Your task to perform on an android device: Open the web browser Image 0: 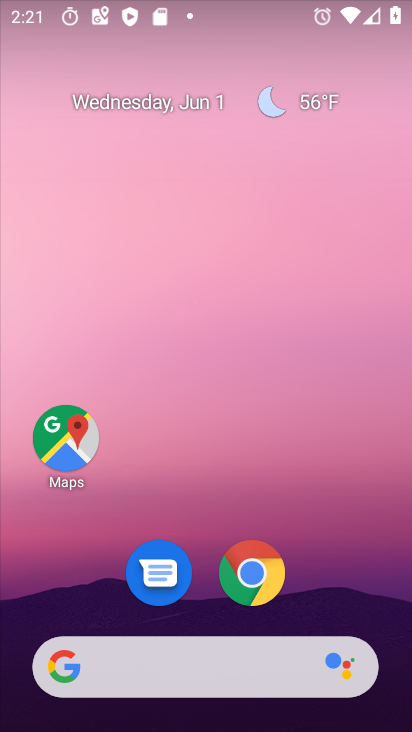
Step 0: drag from (331, 521) to (361, 55)
Your task to perform on an android device: Open the web browser Image 1: 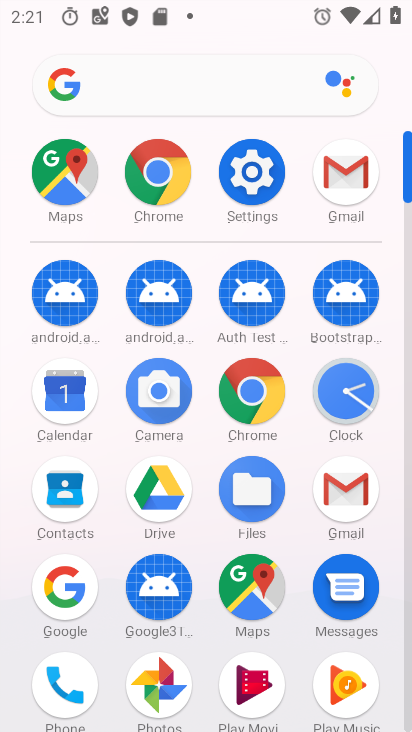
Step 1: click (158, 189)
Your task to perform on an android device: Open the web browser Image 2: 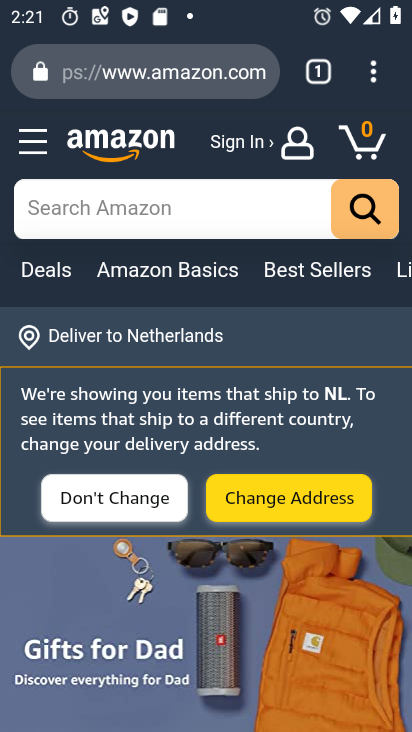
Step 2: task complete